Your task to perform on an android device: Open Google Chrome and click the shortcut for Amazon.com Image 0: 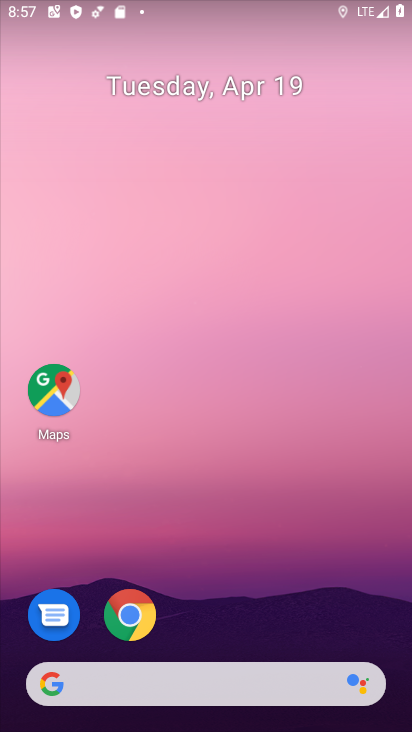
Step 0: click (131, 617)
Your task to perform on an android device: Open Google Chrome and click the shortcut for Amazon.com Image 1: 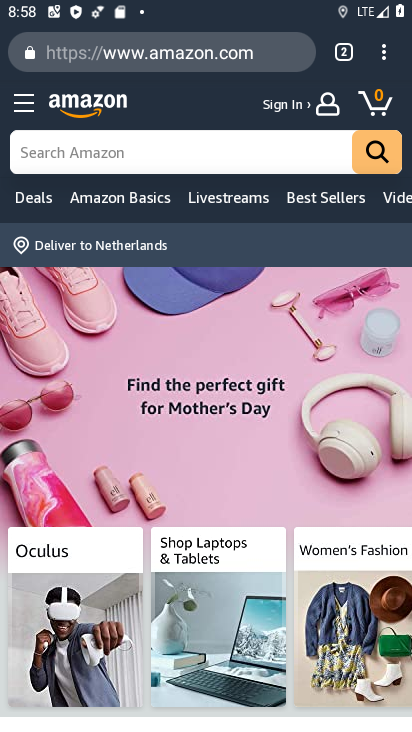
Step 1: click (352, 49)
Your task to perform on an android device: Open Google Chrome and click the shortcut for Amazon.com Image 2: 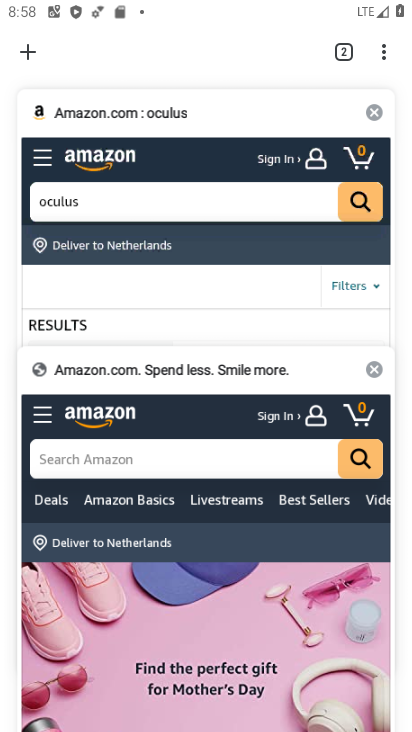
Step 2: click (40, 55)
Your task to perform on an android device: Open Google Chrome and click the shortcut for Amazon.com Image 3: 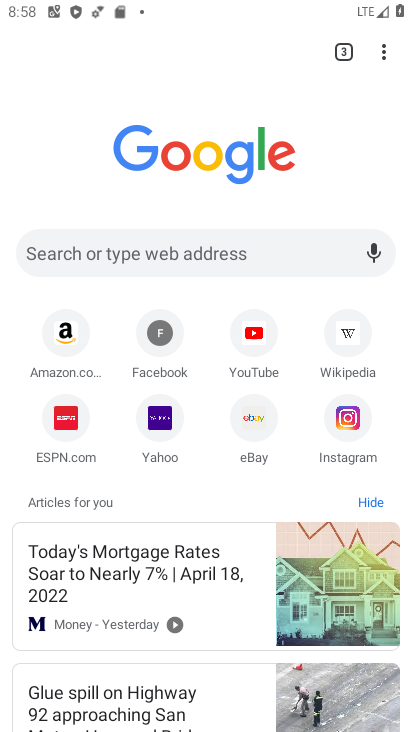
Step 3: click (60, 349)
Your task to perform on an android device: Open Google Chrome and click the shortcut for Amazon.com Image 4: 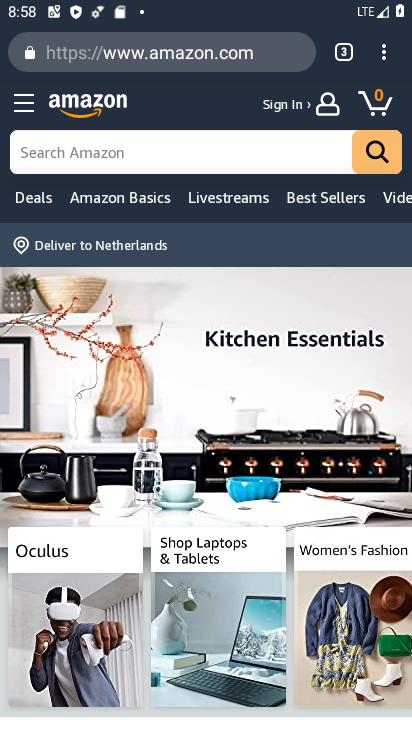
Step 4: task complete